Your task to perform on an android device: Show the shopping cart on costco. Image 0: 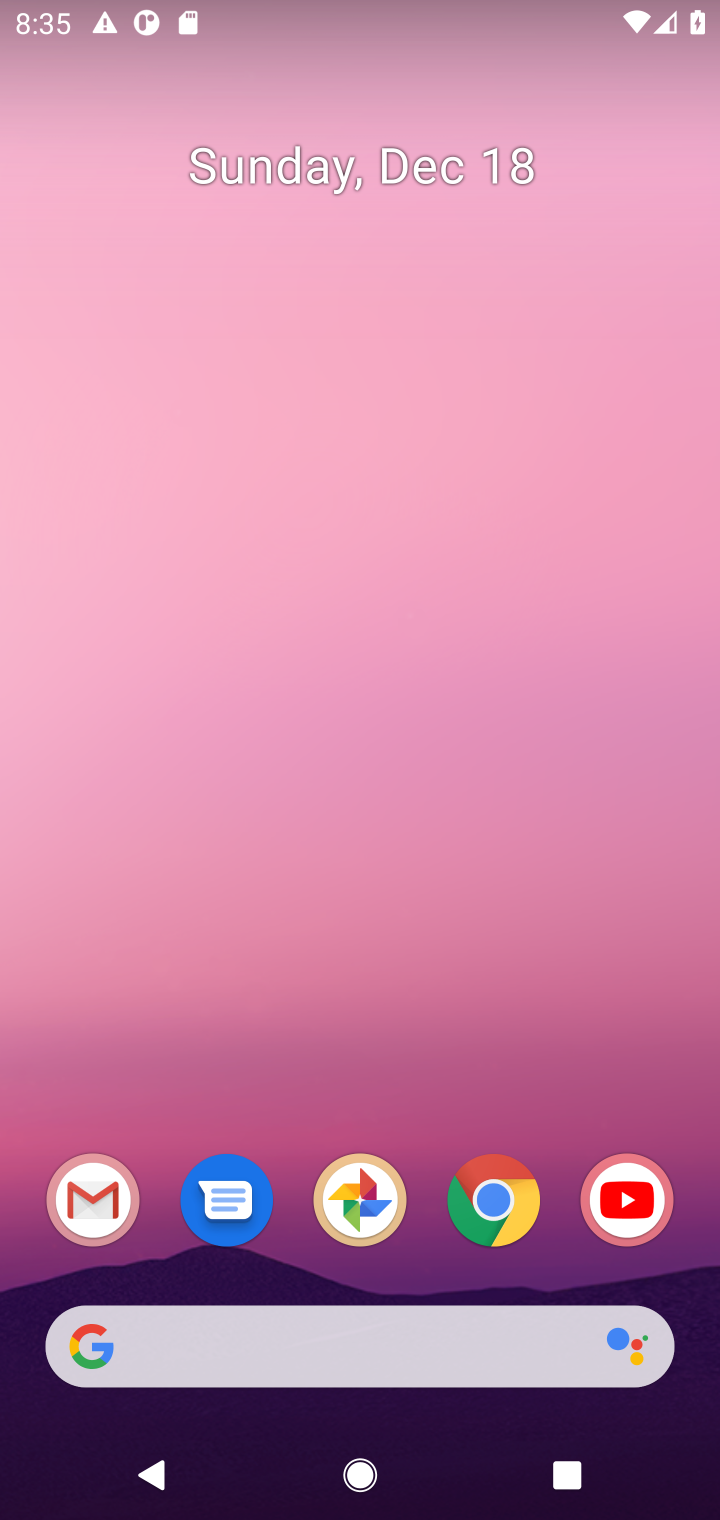
Step 0: click (505, 1208)
Your task to perform on an android device: Show the shopping cart on costco. Image 1: 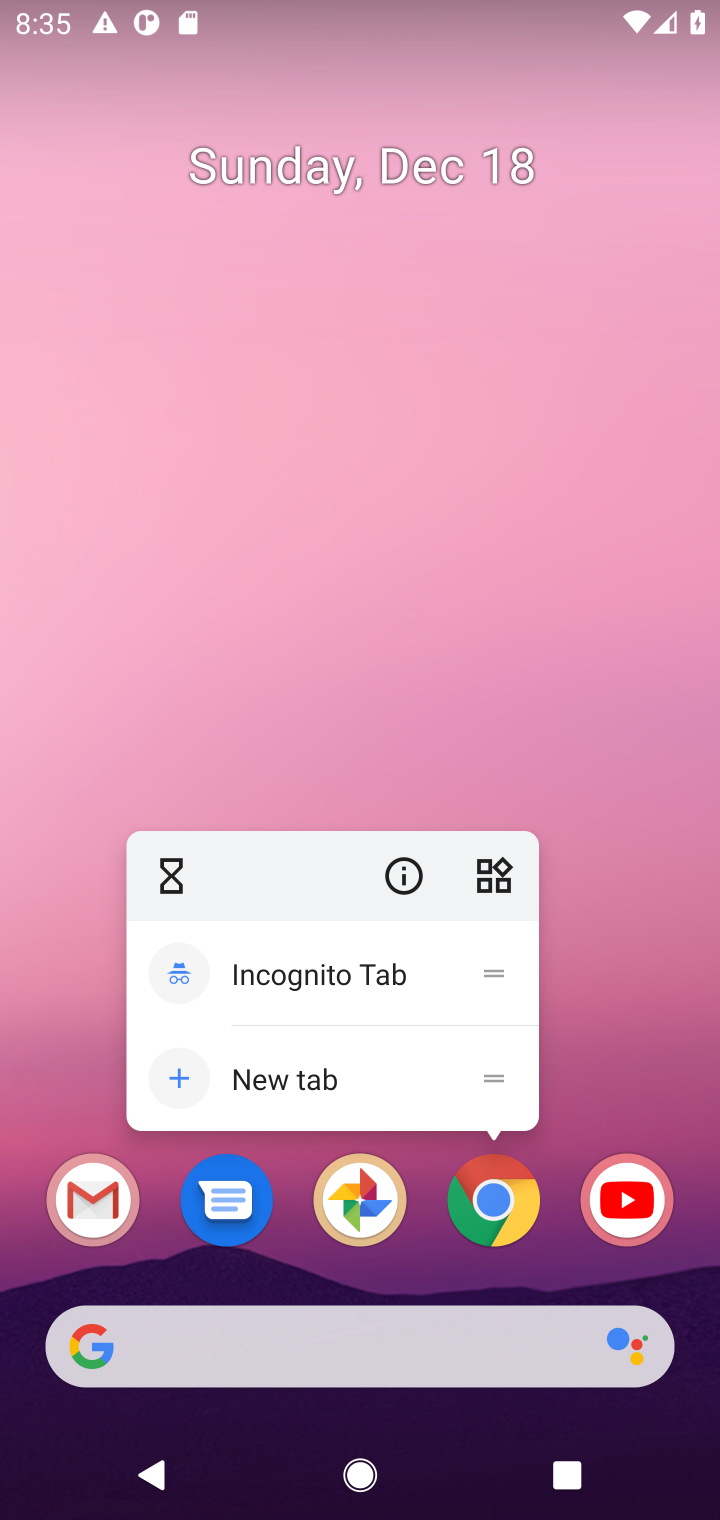
Step 1: click (494, 1225)
Your task to perform on an android device: Show the shopping cart on costco. Image 2: 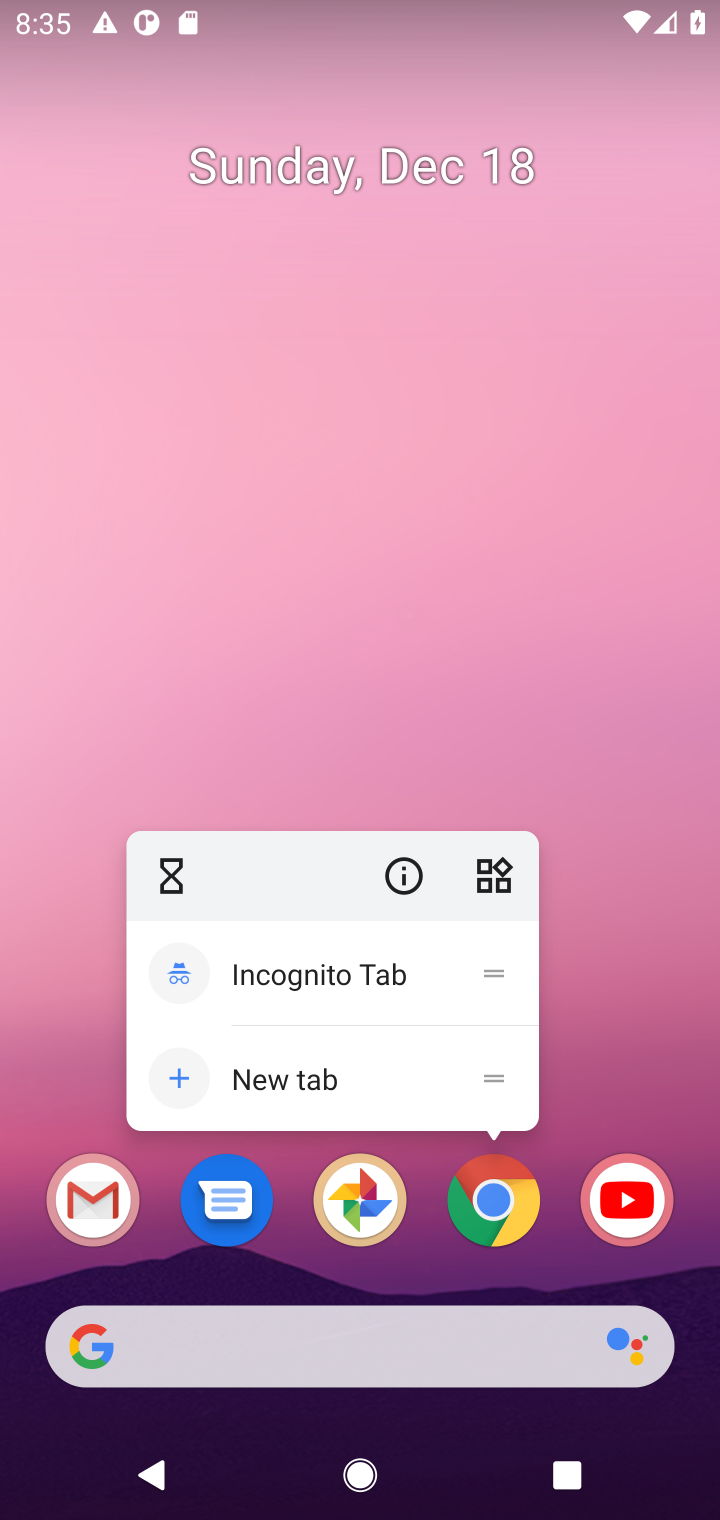
Step 2: click (503, 1207)
Your task to perform on an android device: Show the shopping cart on costco. Image 3: 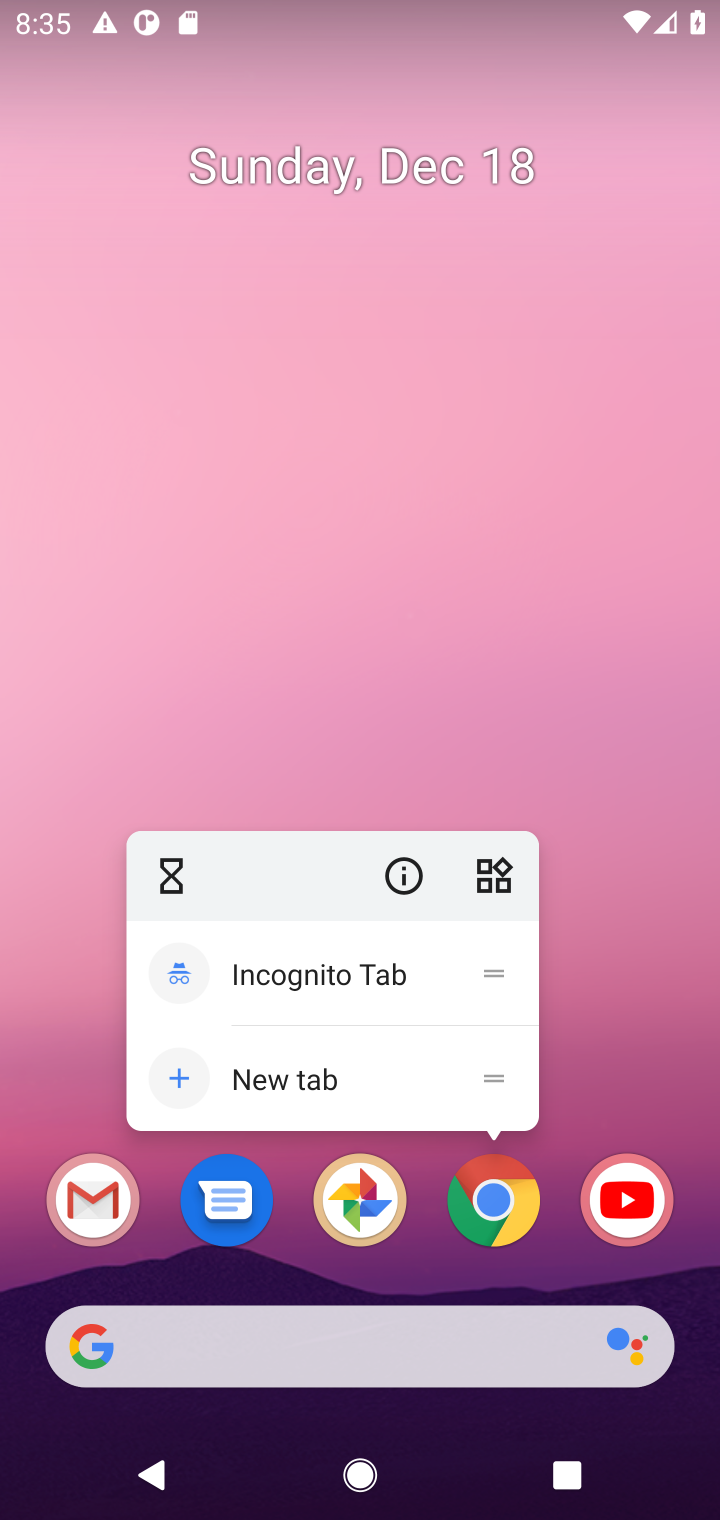
Step 3: click (504, 1202)
Your task to perform on an android device: Show the shopping cart on costco. Image 4: 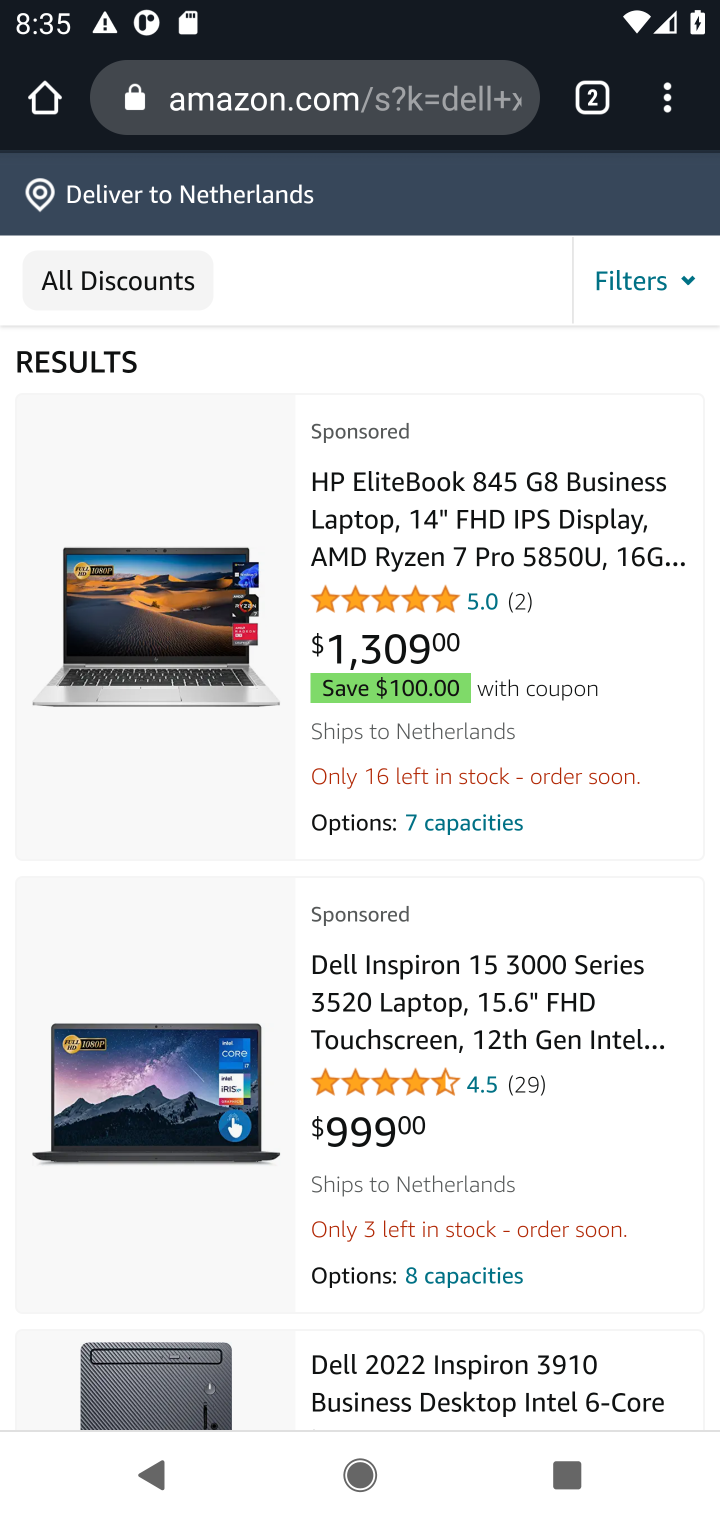
Step 4: click (241, 95)
Your task to perform on an android device: Show the shopping cart on costco. Image 5: 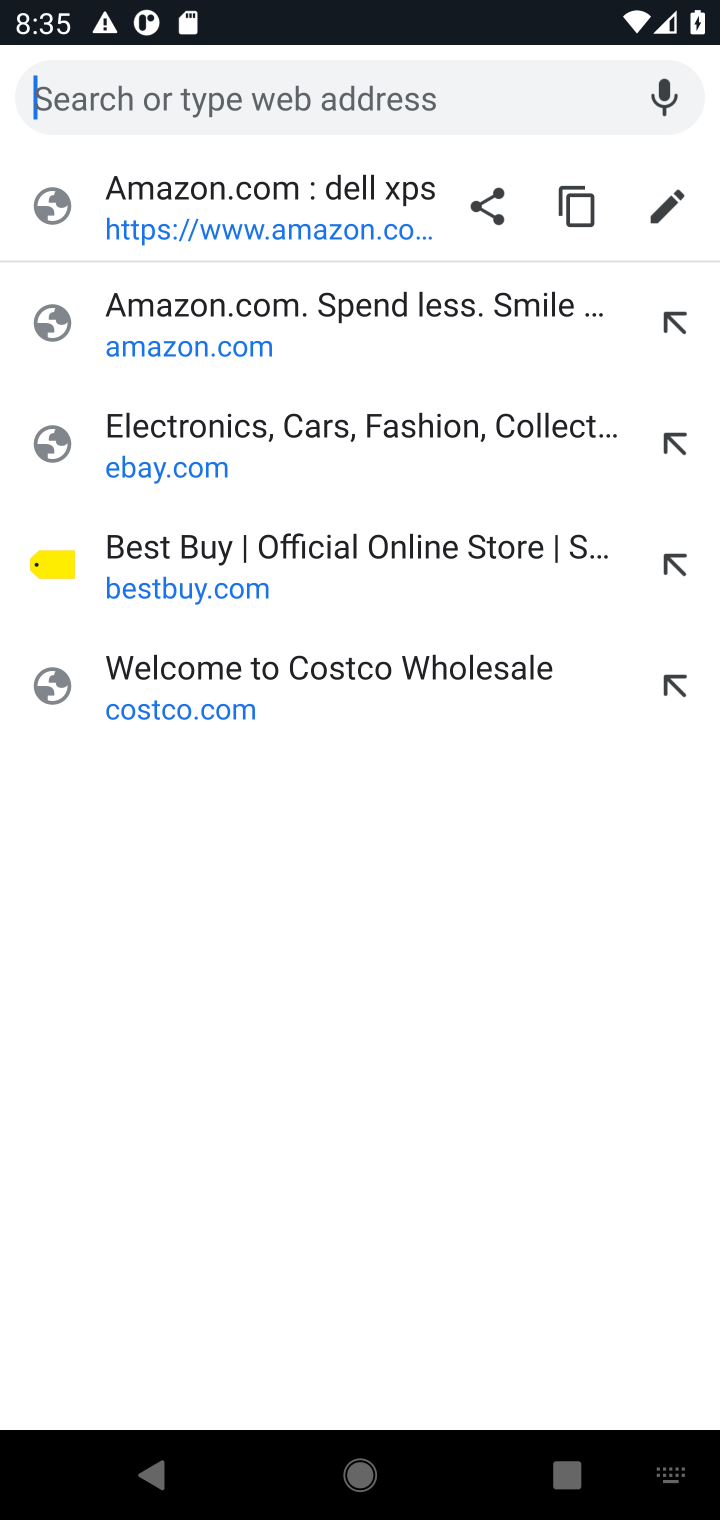
Step 5: click (161, 691)
Your task to perform on an android device: Show the shopping cart on costco. Image 6: 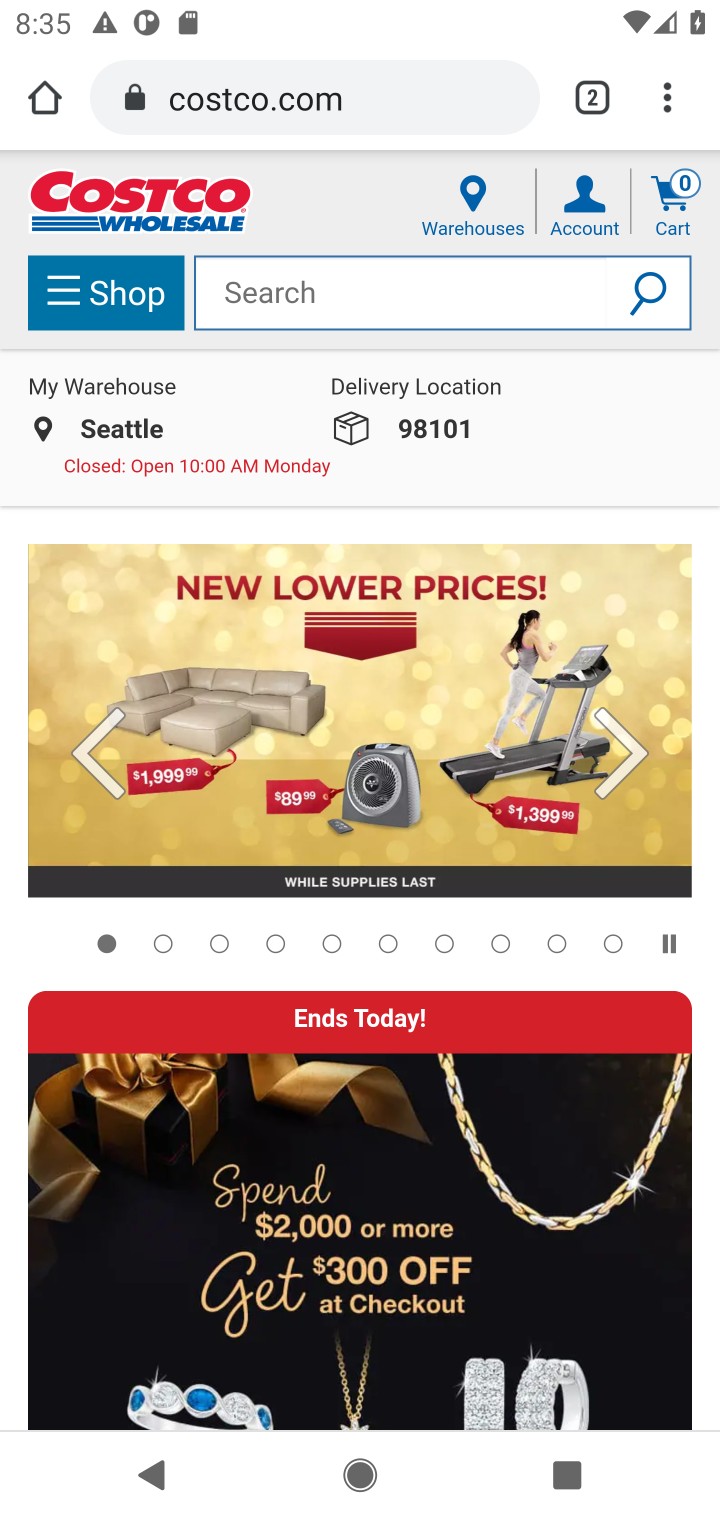
Step 6: click (680, 195)
Your task to perform on an android device: Show the shopping cart on costco. Image 7: 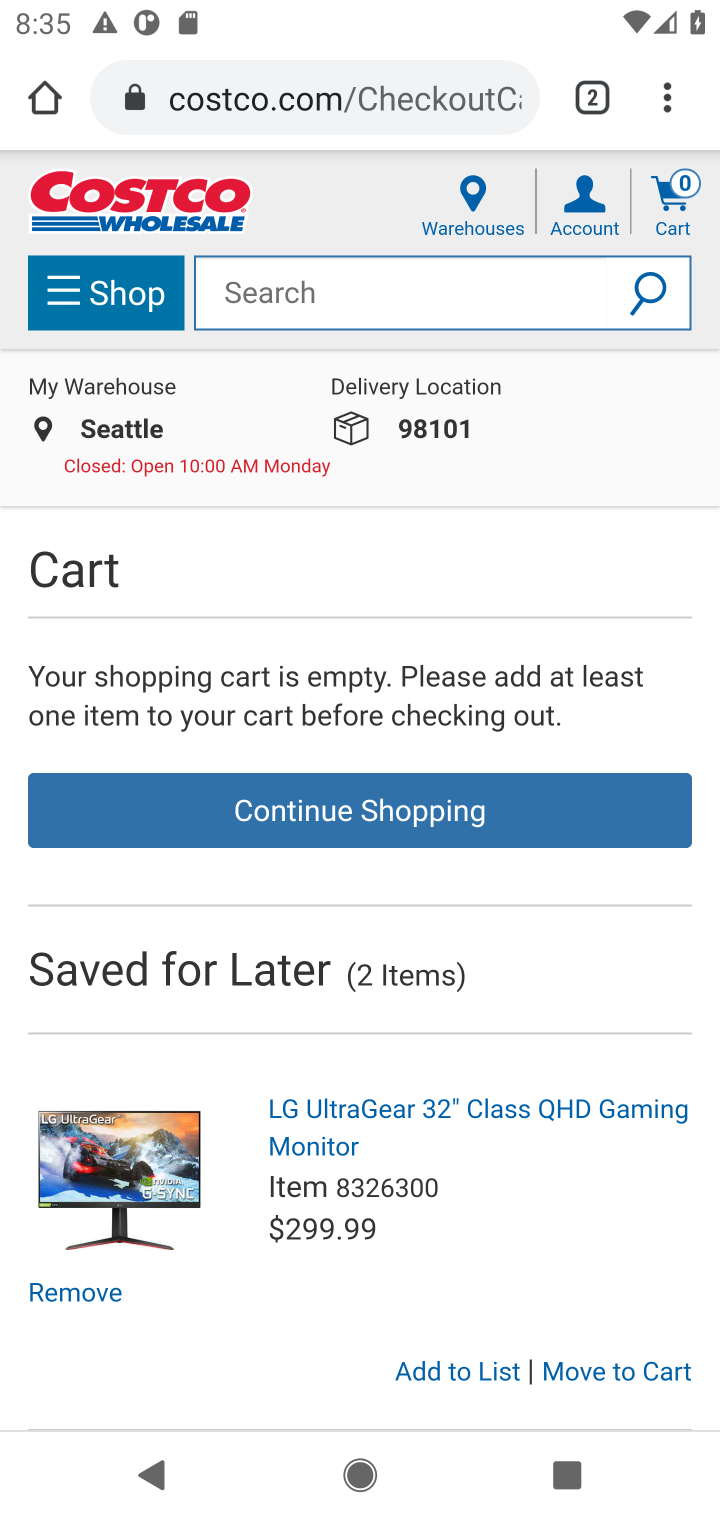
Step 7: task complete